Your task to perform on an android device: toggle location history Image 0: 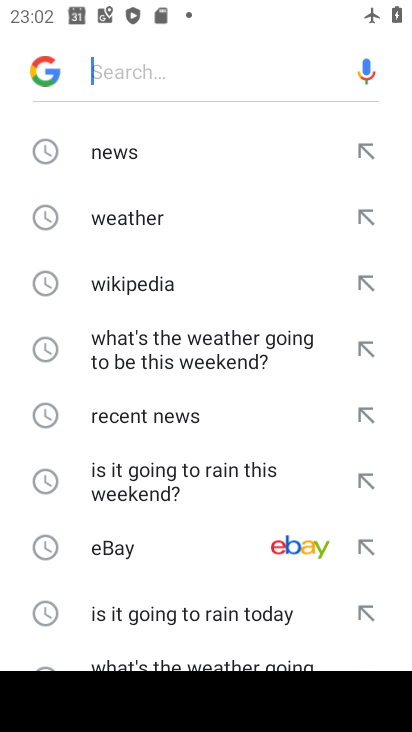
Step 0: press home button
Your task to perform on an android device: toggle location history Image 1: 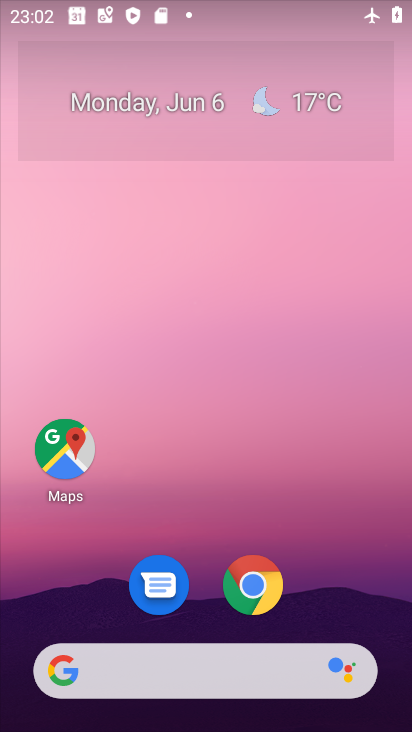
Step 1: drag from (233, 487) to (236, 56)
Your task to perform on an android device: toggle location history Image 2: 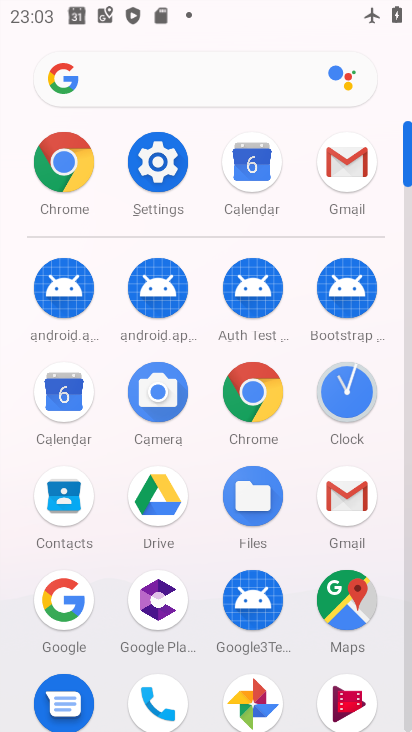
Step 2: click (168, 148)
Your task to perform on an android device: toggle location history Image 3: 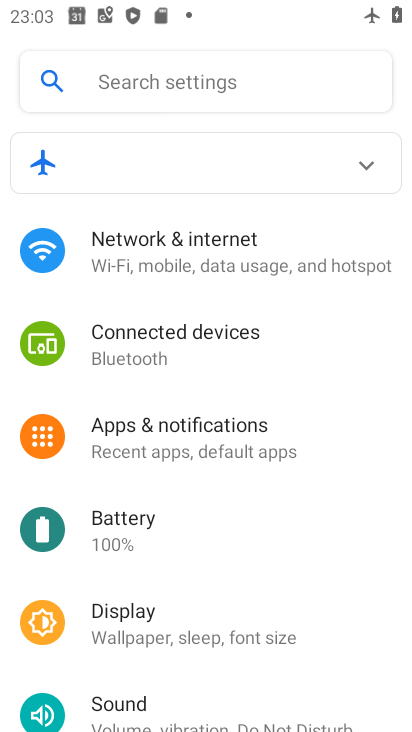
Step 3: drag from (228, 569) to (238, 136)
Your task to perform on an android device: toggle location history Image 4: 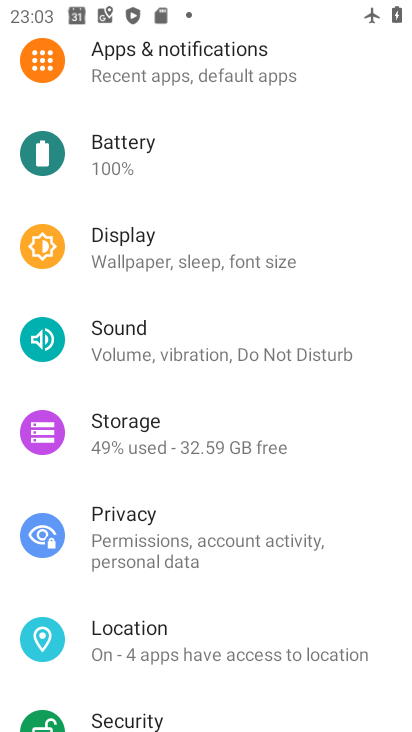
Step 4: click (228, 629)
Your task to perform on an android device: toggle location history Image 5: 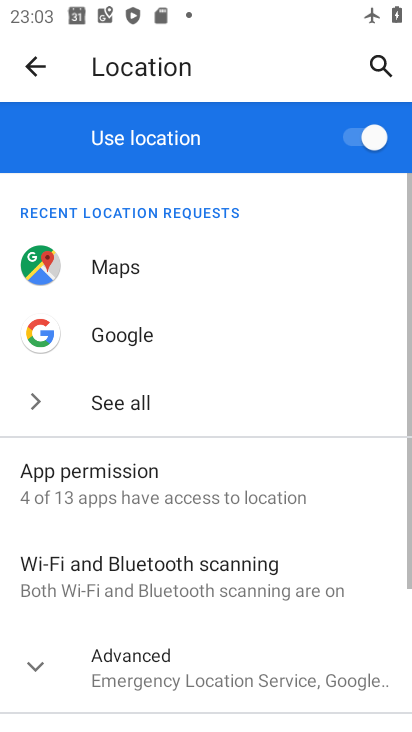
Step 5: click (31, 659)
Your task to perform on an android device: toggle location history Image 6: 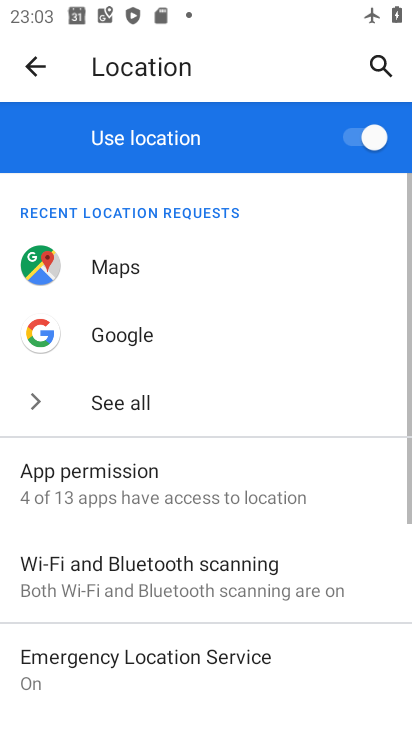
Step 6: drag from (224, 542) to (259, 193)
Your task to perform on an android device: toggle location history Image 7: 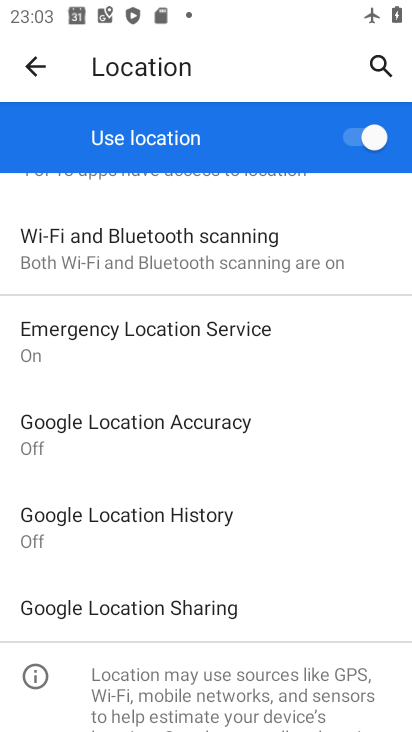
Step 7: click (228, 527)
Your task to perform on an android device: toggle location history Image 8: 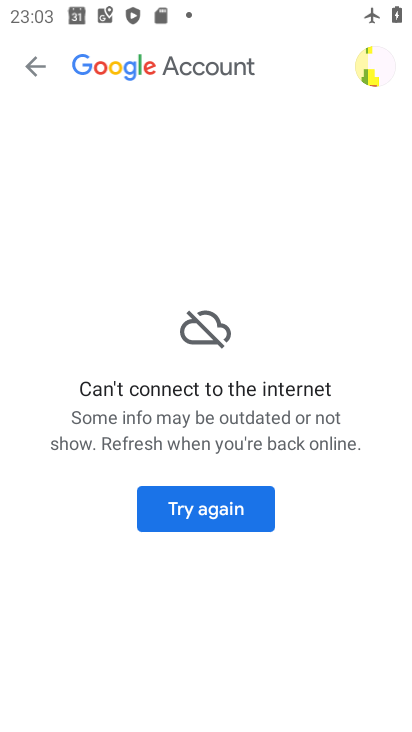
Step 8: task complete